Your task to perform on an android device: open sync settings in chrome Image 0: 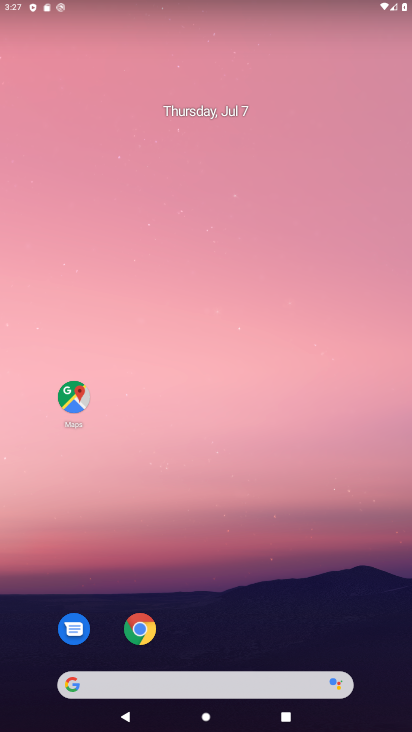
Step 0: click (132, 619)
Your task to perform on an android device: open sync settings in chrome Image 1: 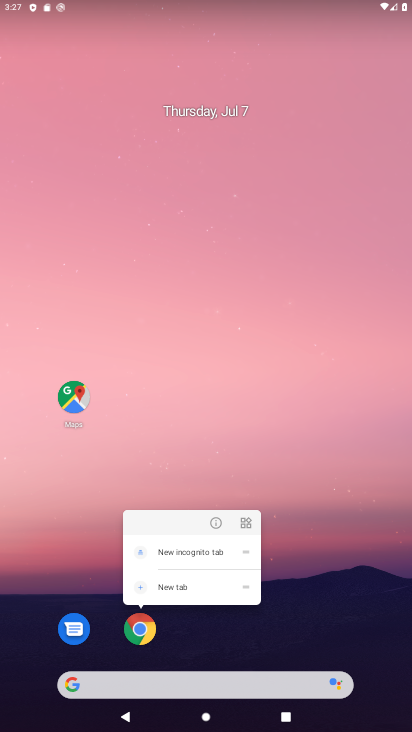
Step 1: click (141, 623)
Your task to perform on an android device: open sync settings in chrome Image 2: 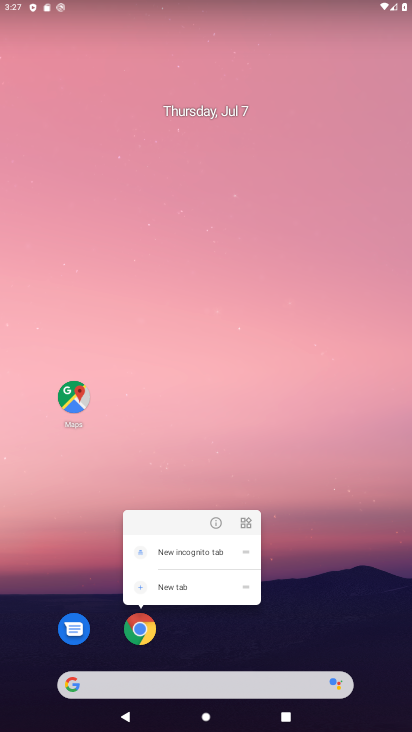
Step 2: click (132, 630)
Your task to perform on an android device: open sync settings in chrome Image 3: 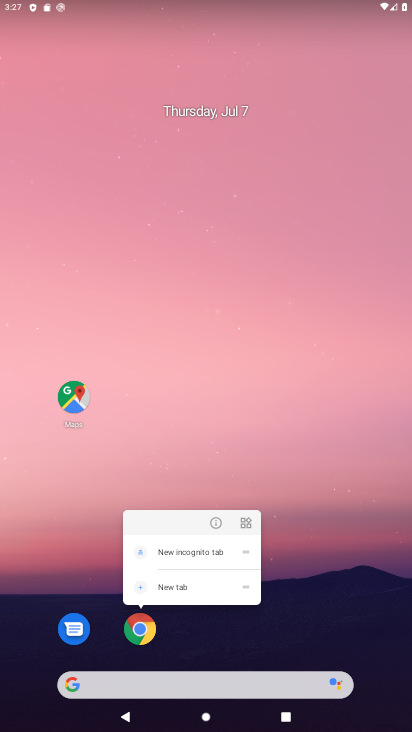
Step 3: click (139, 617)
Your task to perform on an android device: open sync settings in chrome Image 4: 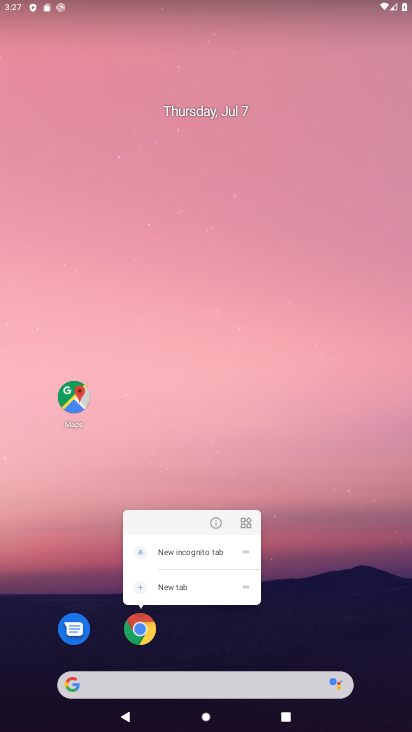
Step 4: click (136, 646)
Your task to perform on an android device: open sync settings in chrome Image 5: 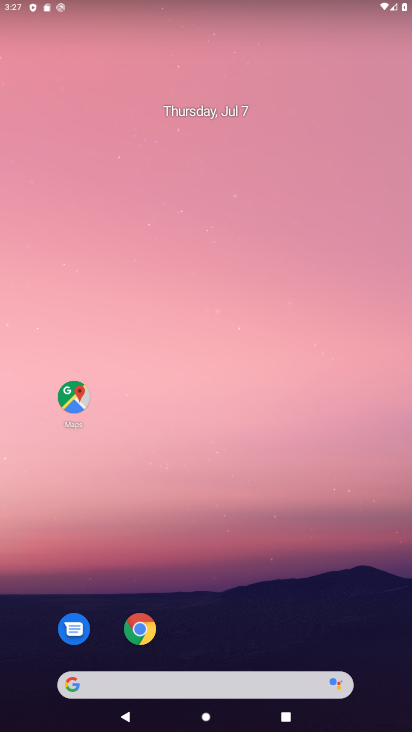
Step 5: click (138, 642)
Your task to perform on an android device: open sync settings in chrome Image 6: 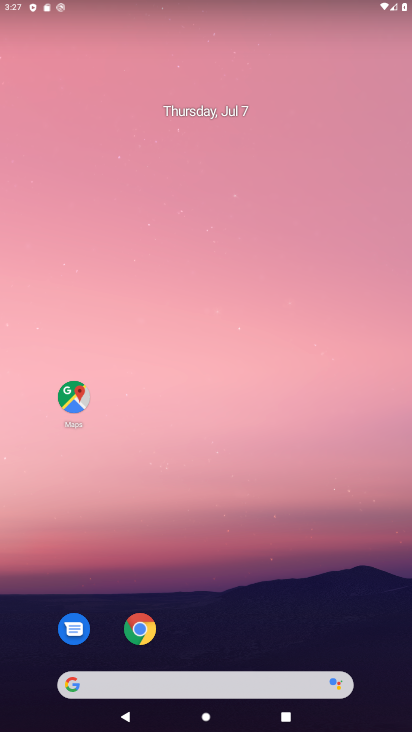
Step 6: click (137, 626)
Your task to perform on an android device: open sync settings in chrome Image 7: 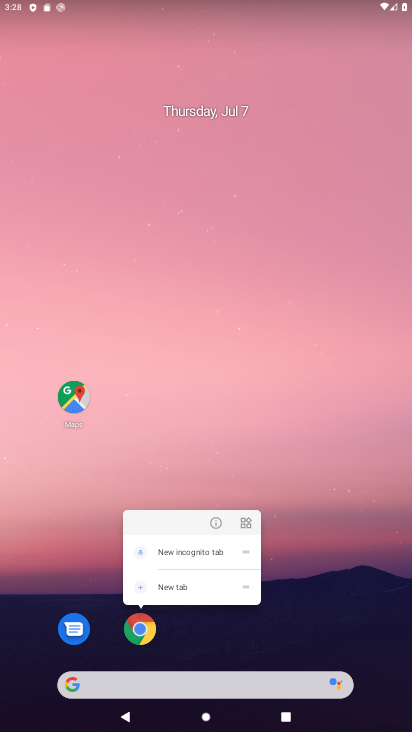
Step 7: click (141, 628)
Your task to perform on an android device: open sync settings in chrome Image 8: 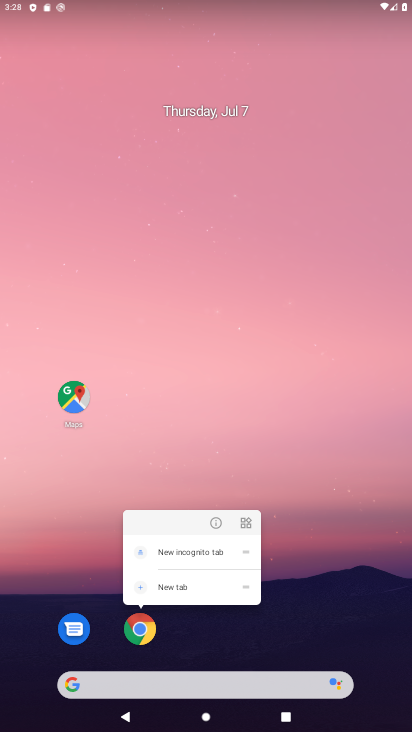
Step 8: task complete